Your task to perform on an android device: open a bookmark in the chrome app Image 0: 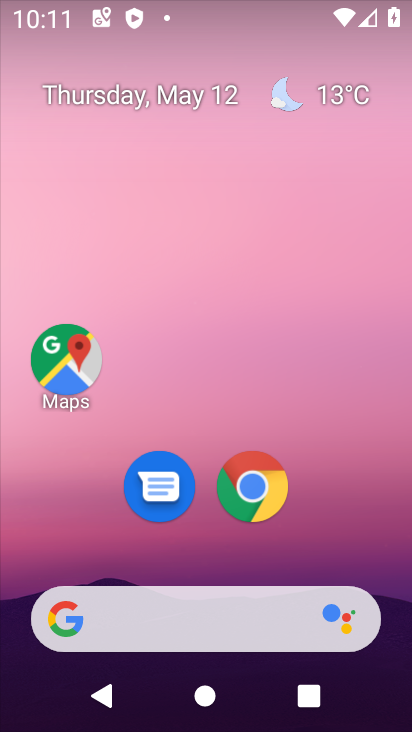
Step 0: click (277, 494)
Your task to perform on an android device: open a bookmark in the chrome app Image 1: 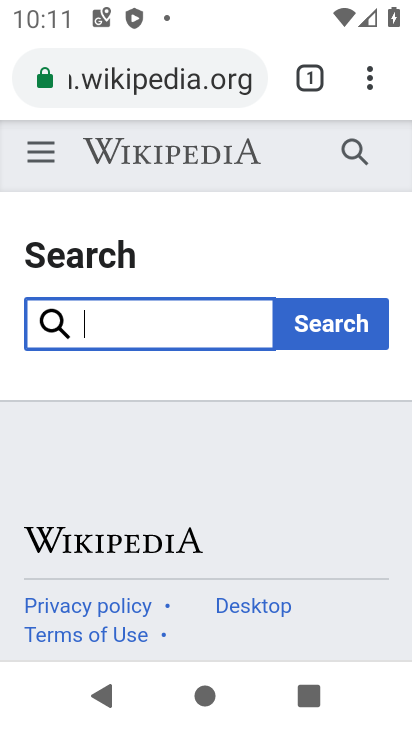
Step 1: click (366, 92)
Your task to perform on an android device: open a bookmark in the chrome app Image 2: 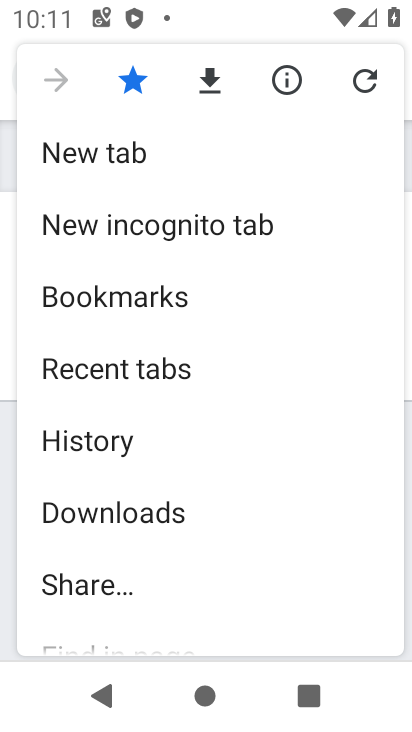
Step 2: click (164, 309)
Your task to perform on an android device: open a bookmark in the chrome app Image 3: 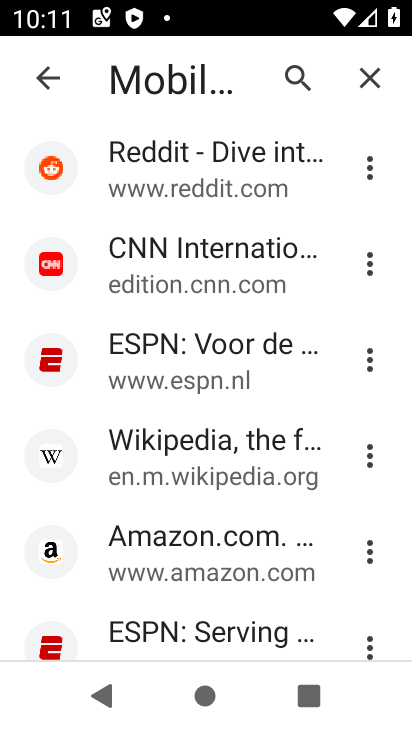
Step 3: click (181, 342)
Your task to perform on an android device: open a bookmark in the chrome app Image 4: 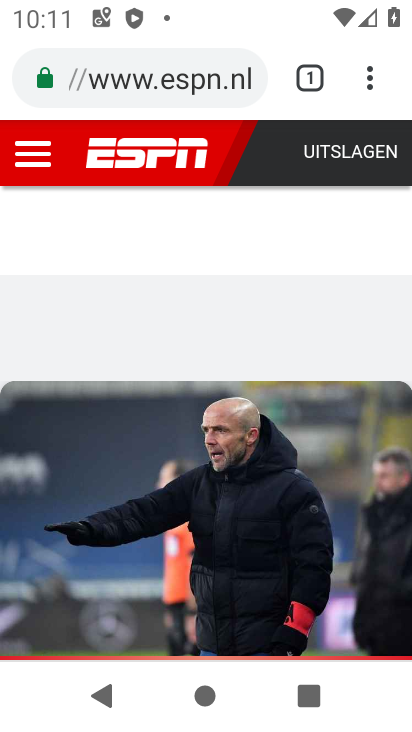
Step 4: task complete